Your task to perform on an android device: Go to eBay Image 0: 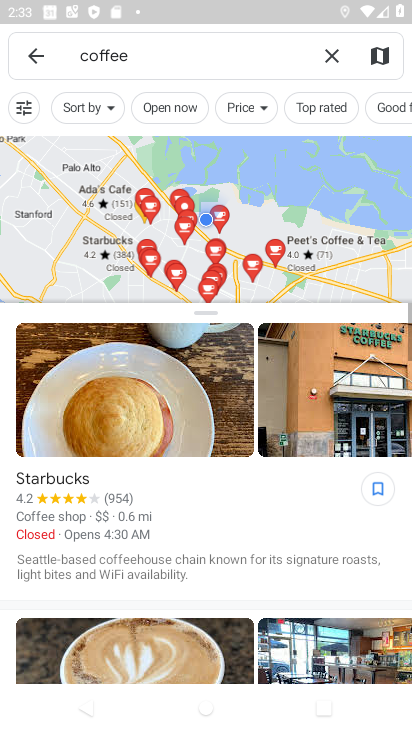
Step 0: press home button
Your task to perform on an android device: Go to eBay Image 1: 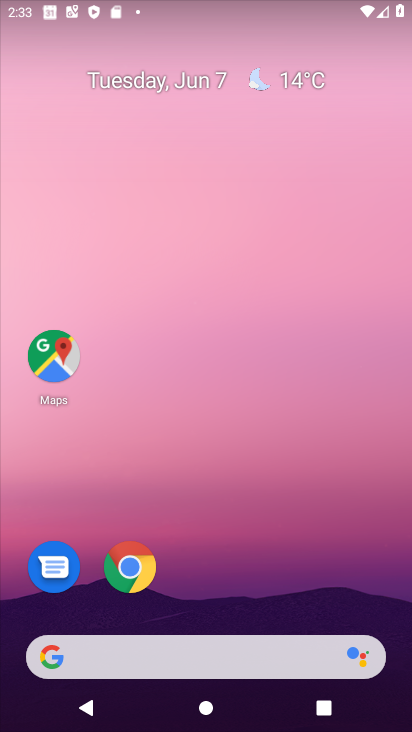
Step 1: click (117, 562)
Your task to perform on an android device: Go to eBay Image 2: 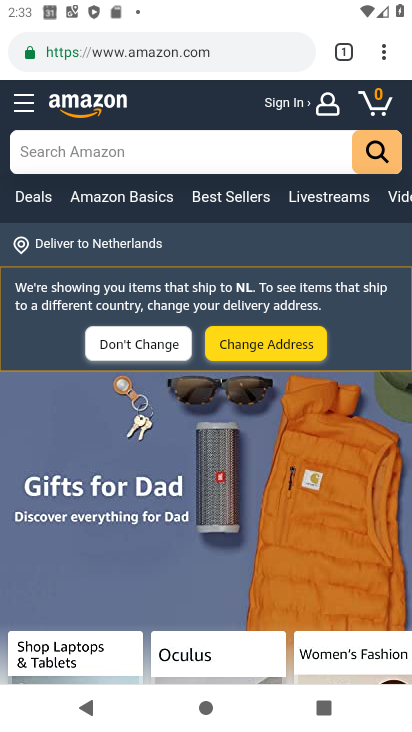
Step 2: click (325, 45)
Your task to perform on an android device: Go to eBay Image 3: 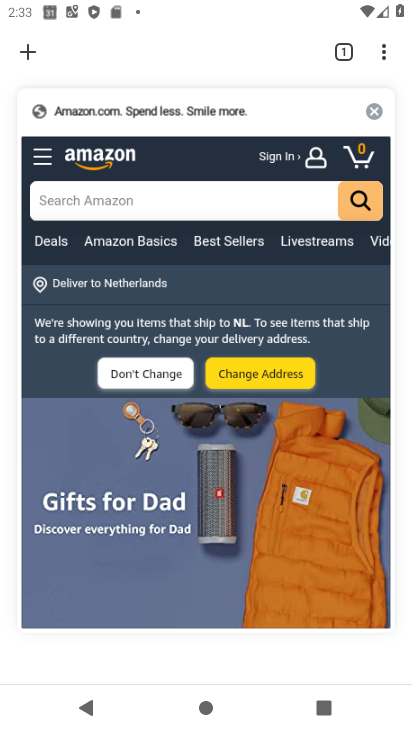
Step 3: click (26, 49)
Your task to perform on an android device: Go to eBay Image 4: 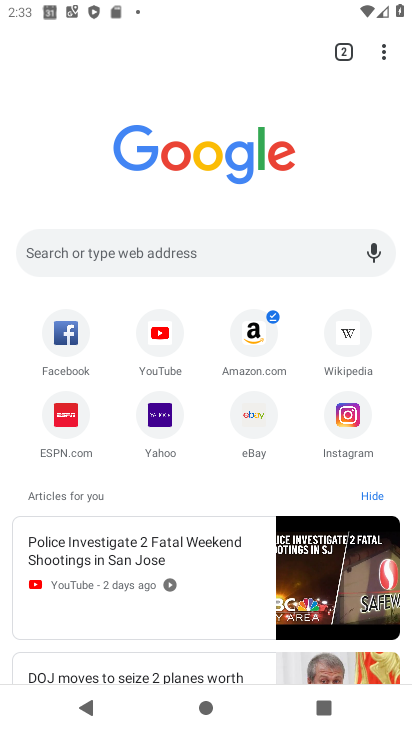
Step 4: click (246, 398)
Your task to perform on an android device: Go to eBay Image 5: 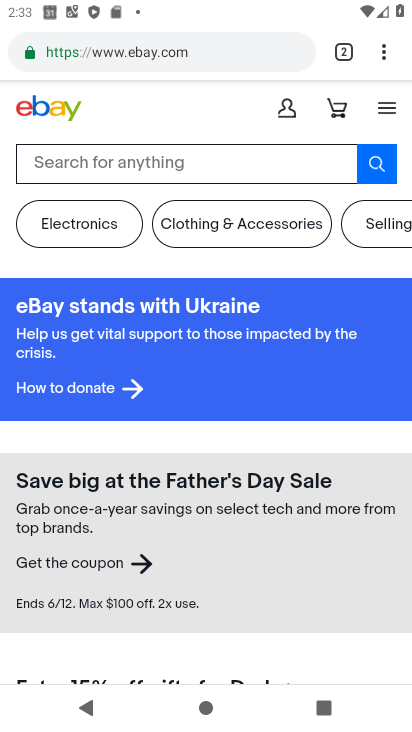
Step 5: task complete